Your task to perform on an android device: Go to eBay Image 0: 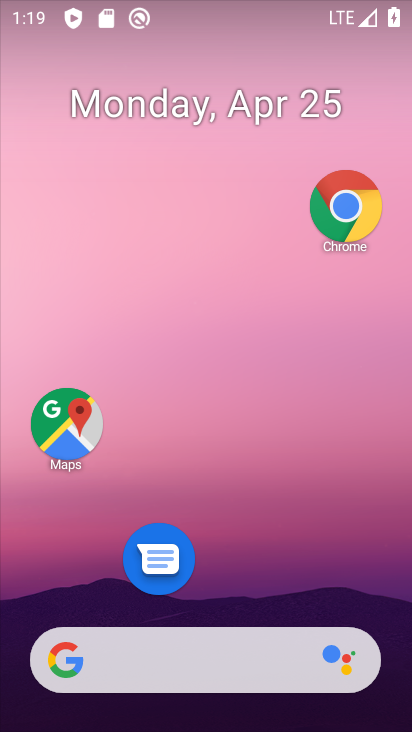
Step 0: click (170, 667)
Your task to perform on an android device: Go to eBay Image 1: 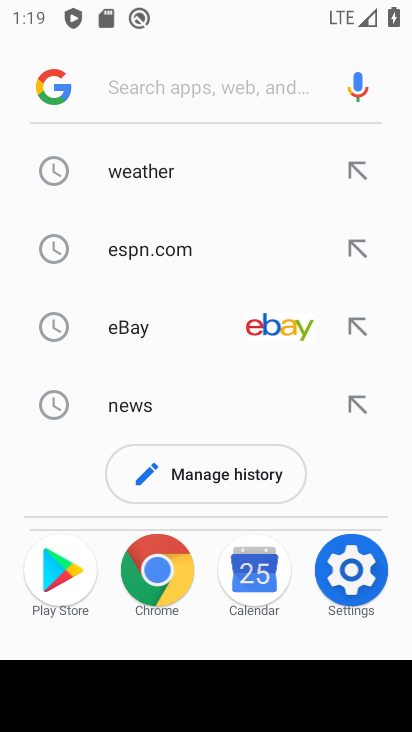
Step 1: click (129, 328)
Your task to perform on an android device: Go to eBay Image 2: 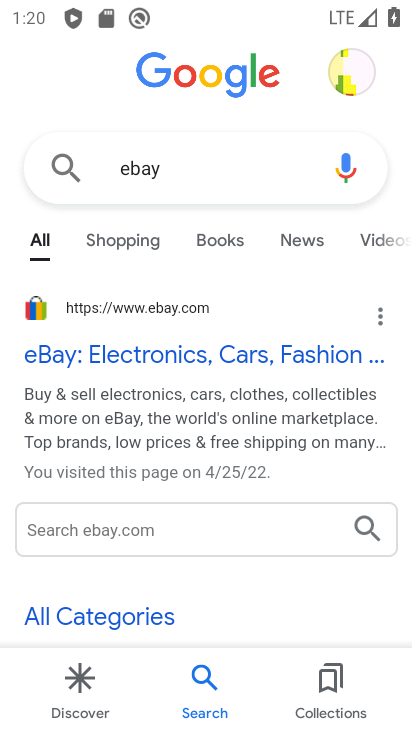
Step 2: task complete